Your task to perform on an android device: Go to privacy settings Image 0: 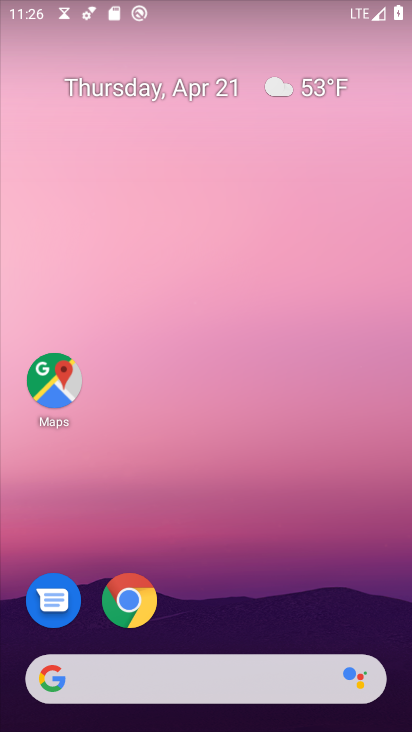
Step 0: drag from (280, 589) to (236, 24)
Your task to perform on an android device: Go to privacy settings Image 1: 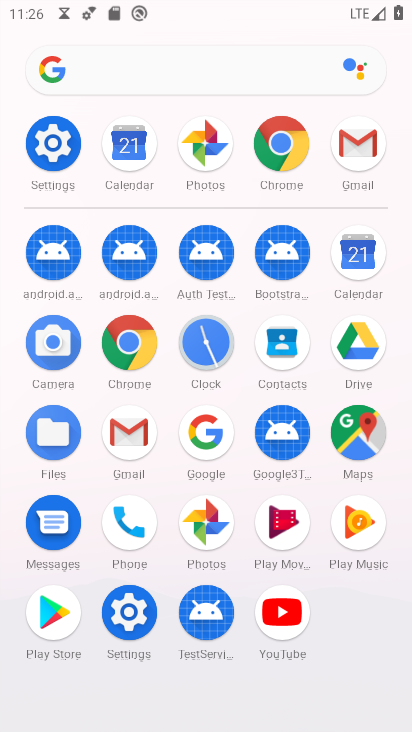
Step 1: click (53, 145)
Your task to perform on an android device: Go to privacy settings Image 2: 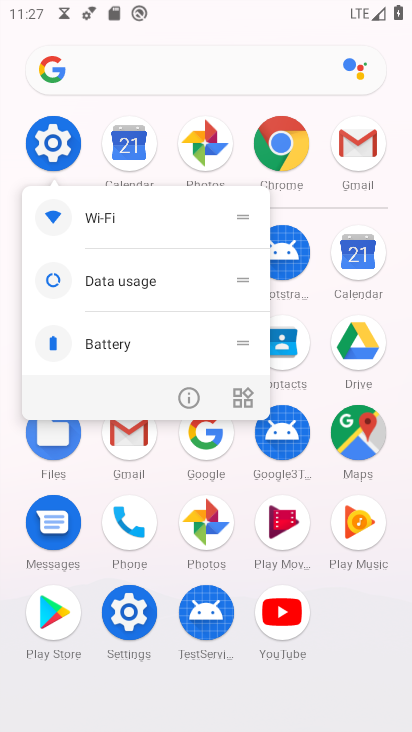
Step 2: click (51, 149)
Your task to perform on an android device: Go to privacy settings Image 3: 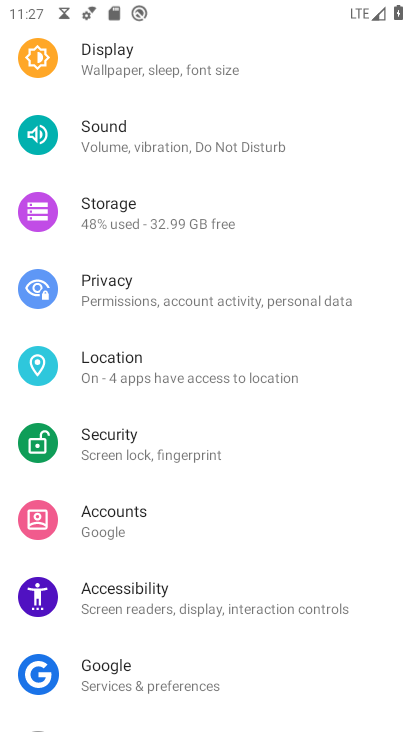
Step 3: click (165, 300)
Your task to perform on an android device: Go to privacy settings Image 4: 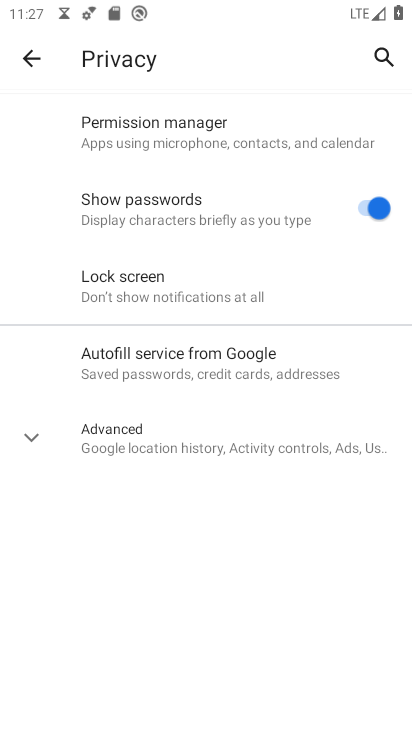
Step 4: task complete